Your task to perform on an android device: delete the emails in spam in the gmail app Image 0: 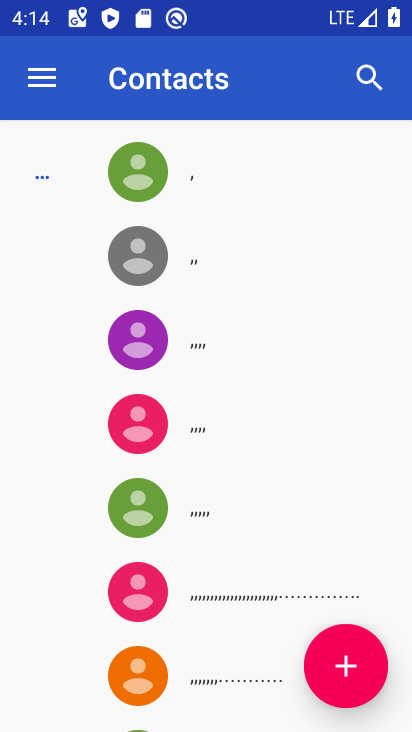
Step 0: press home button
Your task to perform on an android device: delete the emails in spam in the gmail app Image 1: 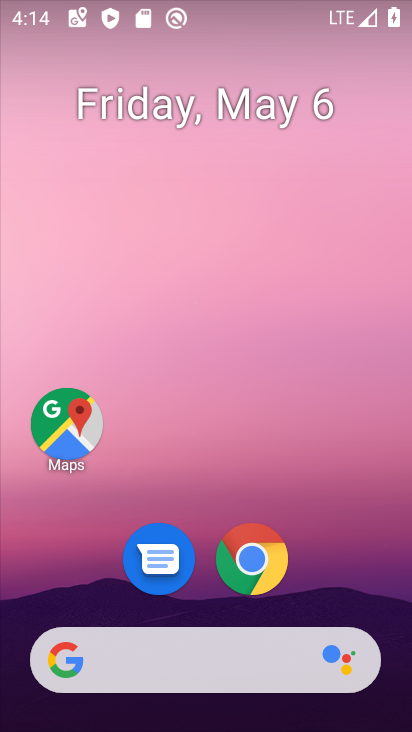
Step 1: drag from (221, 622) to (218, 227)
Your task to perform on an android device: delete the emails in spam in the gmail app Image 2: 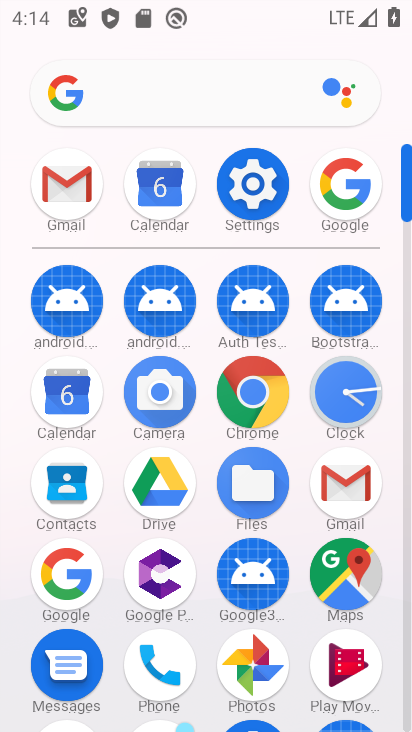
Step 2: click (347, 491)
Your task to perform on an android device: delete the emails in spam in the gmail app Image 3: 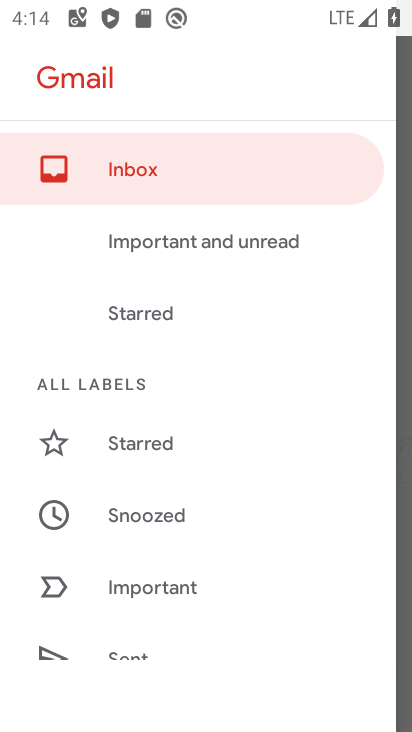
Step 3: drag from (208, 614) to (228, 295)
Your task to perform on an android device: delete the emails in spam in the gmail app Image 4: 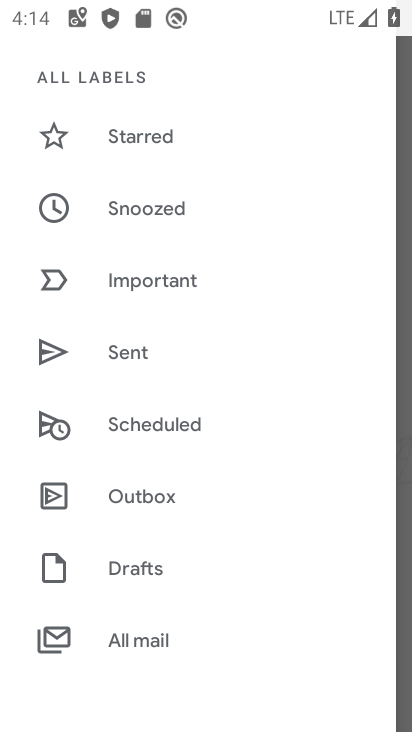
Step 4: drag from (160, 629) to (202, 245)
Your task to perform on an android device: delete the emails in spam in the gmail app Image 5: 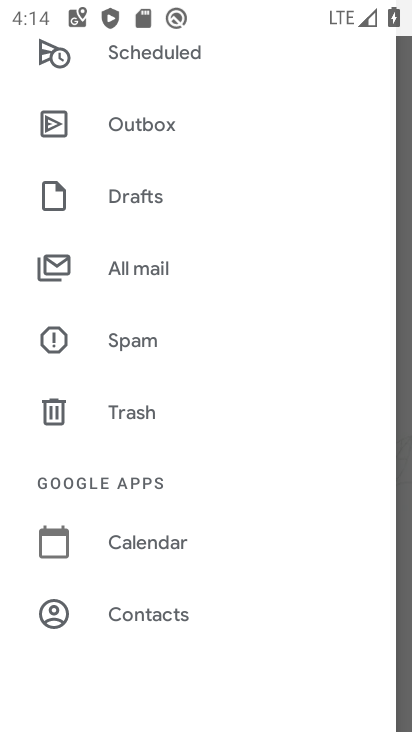
Step 5: drag from (171, 613) to (217, 252)
Your task to perform on an android device: delete the emails in spam in the gmail app Image 6: 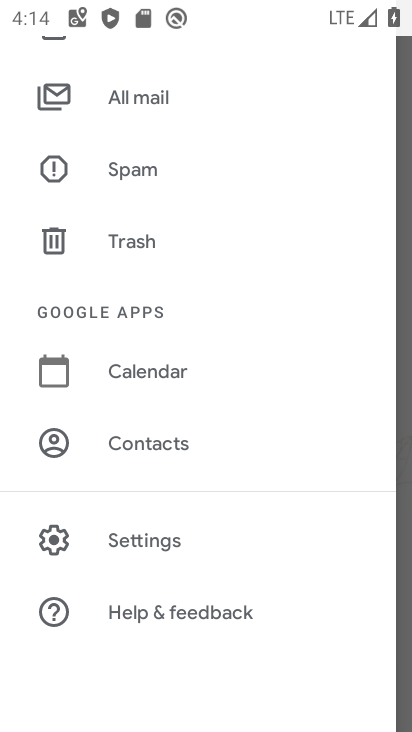
Step 6: click (134, 174)
Your task to perform on an android device: delete the emails in spam in the gmail app Image 7: 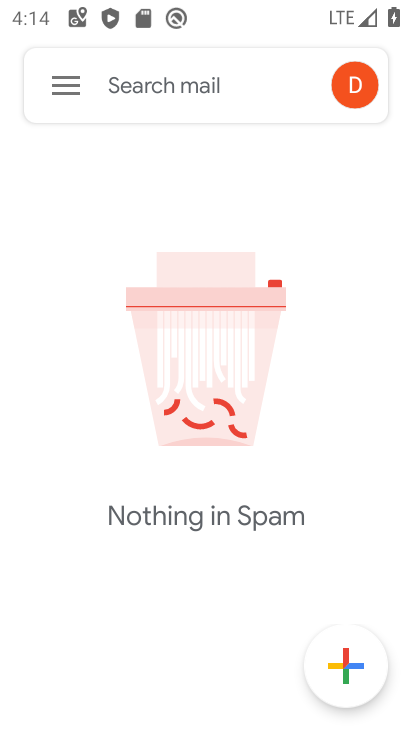
Step 7: task complete